Your task to perform on an android device: Open location settings Image 0: 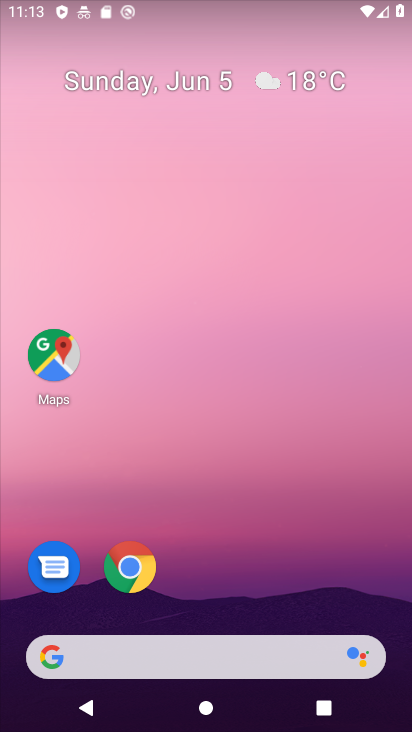
Step 0: drag from (234, 517) to (223, 0)
Your task to perform on an android device: Open location settings Image 1: 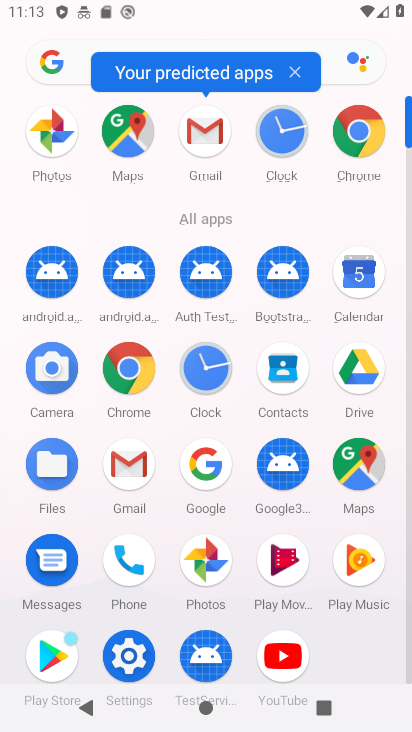
Step 1: click (134, 655)
Your task to perform on an android device: Open location settings Image 2: 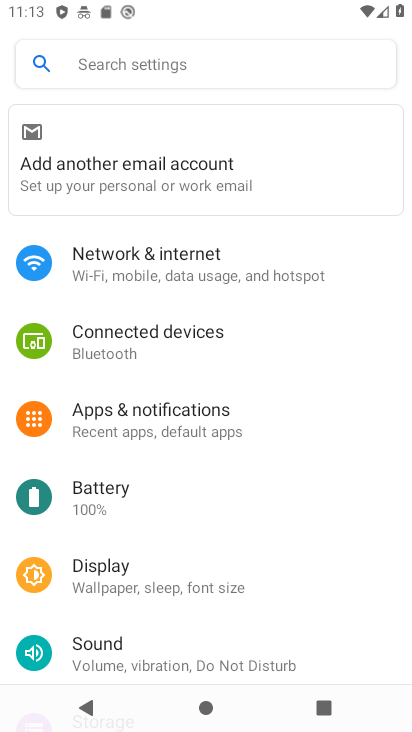
Step 2: drag from (191, 502) to (178, 124)
Your task to perform on an android device: Open location settings Image 3: 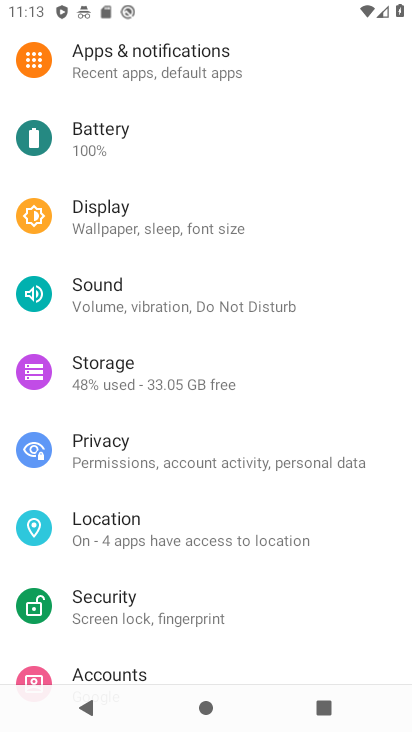
Step 3: click (180, 529)
Your task to perform on an android device: Open location settings Image 4: 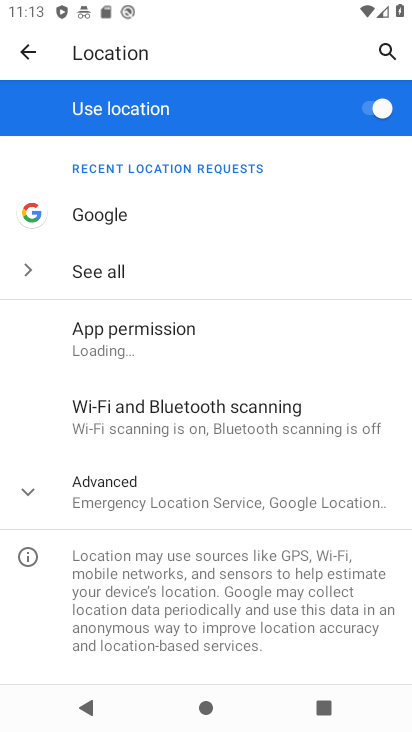
Step 4: task complete